Your task to perform on an android device: read, delete, or share a saved page in the chrome app Image 0: 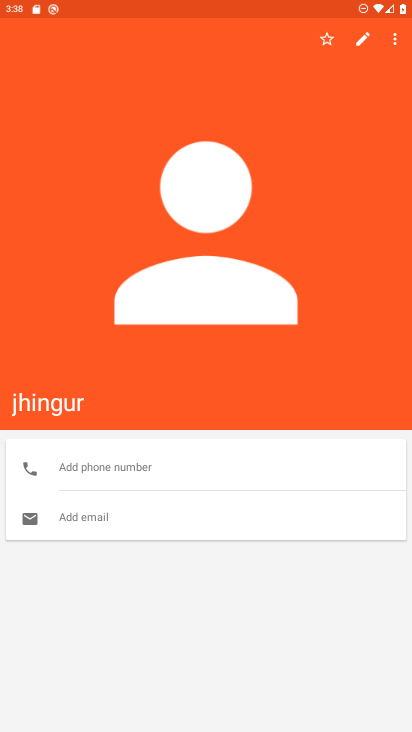
Step 0: press home button
Your task to perform on an android device: read, delete, or share a saved page in the chrome app Image 1: 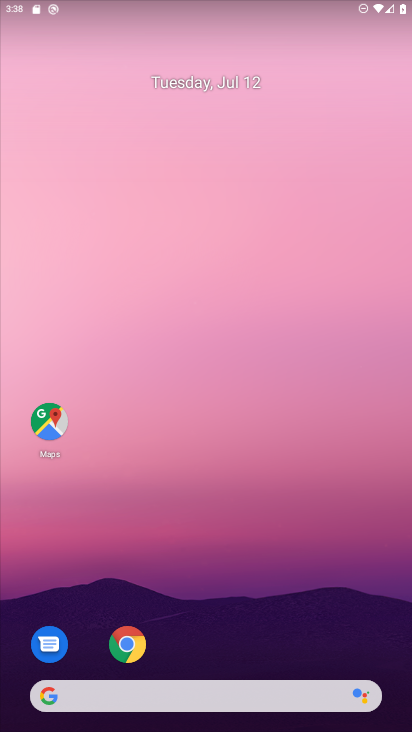
Step 1: drag from (303, 529) to (254, 89)
Your task to perform on an android device: read, delete, or share a saved page in the chrome app Image 2: 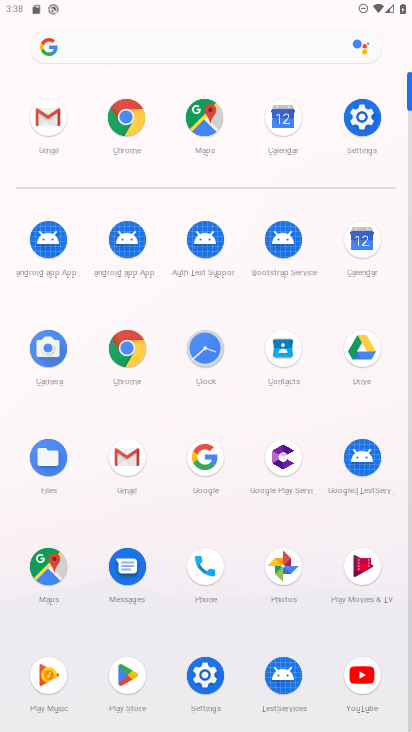
Step 2: click (130, 340)
Your task to perform on an android device: read, delete, or share a saved page in the chrome app Image 3: 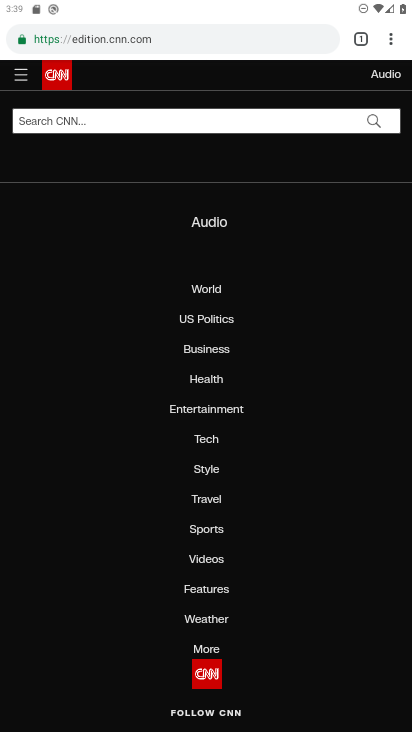
Step 3: task complete